Your task to perform on an android device: toggle airplane mode Image 0: 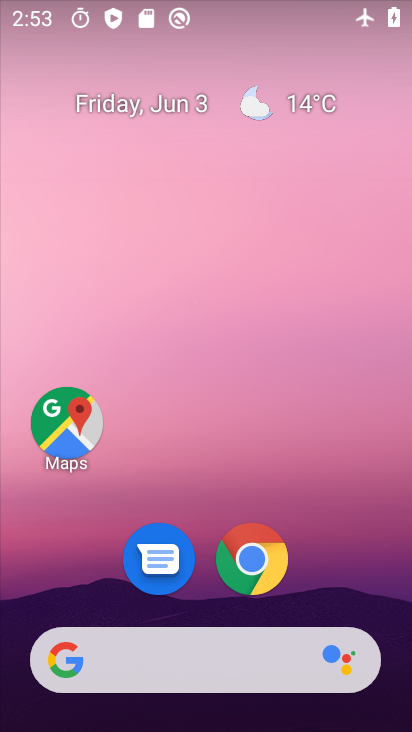
Step 0: drag from (236, 620) to (156, 12)
Your task to perform on an android device: toggle airplane mode Image 1: 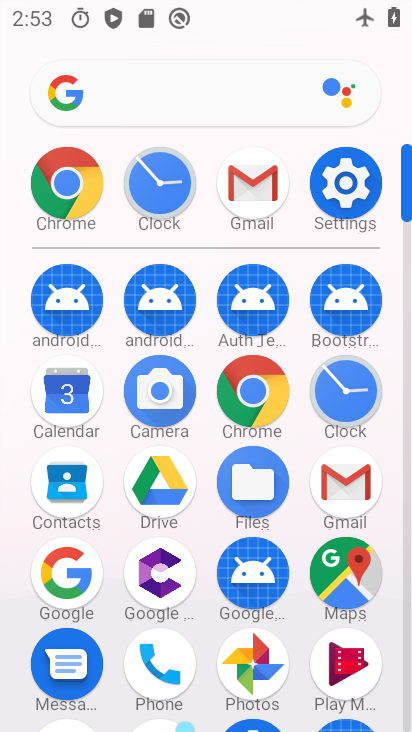
Step 1: click (362, 194)
Your task to perform on an android device: toggle airplane mode Image 2: 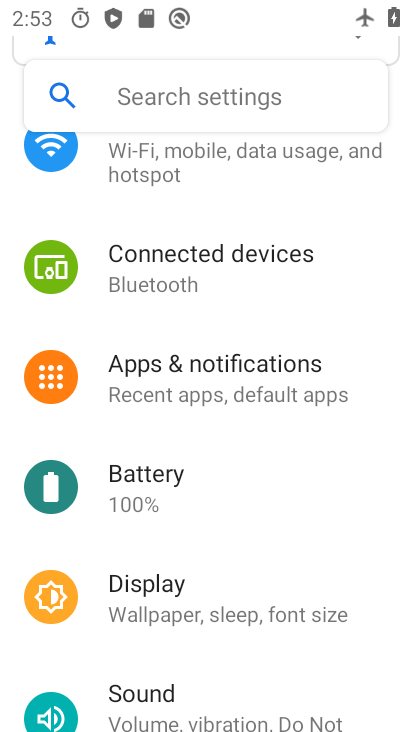
Step 2: drag from (212, 205) to (215, 611)
Your task to perform on an android device: toggle airplane mode Image 3: 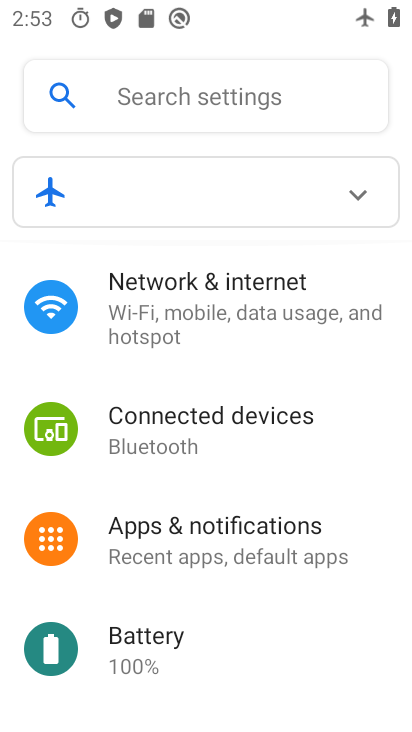
Step 3: click (171, 308)
Your task to perform on an android device: toggle airplane mode Image 4: 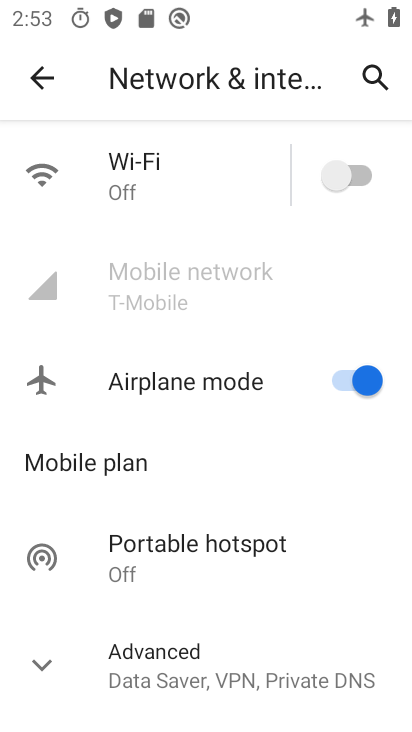
Step 4: click (342, 378)
Your task to perform on an android device: toggle airplane mode Image 5: 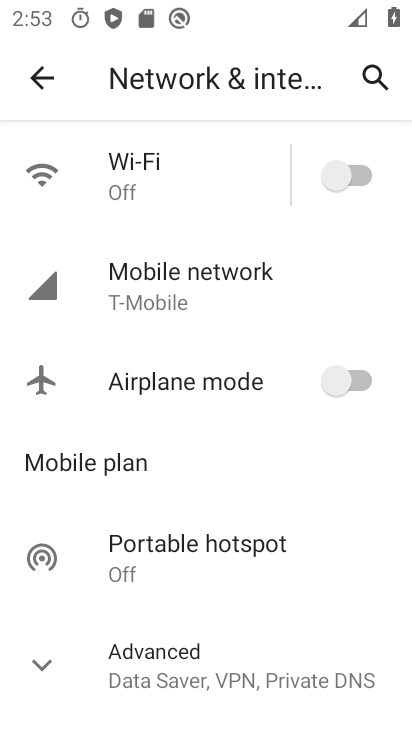
Step 5: task complete